Your task to perform on an android device: Open Chrome and go to the settings page Image 0: 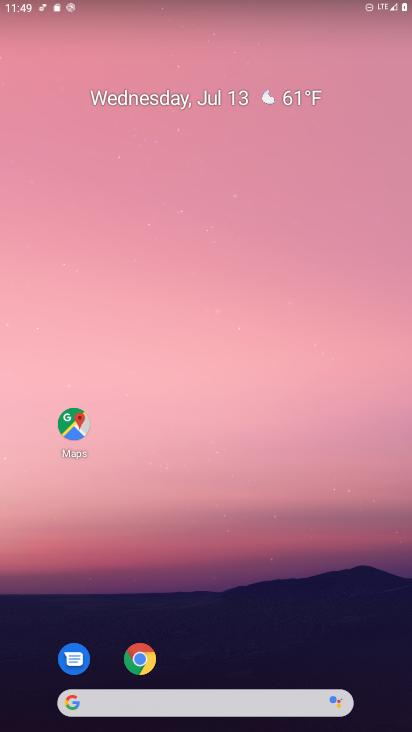
Step 0: click (141, 662)
Your task to perform on an android device: Open Chrome and go to the settings page Image 1: 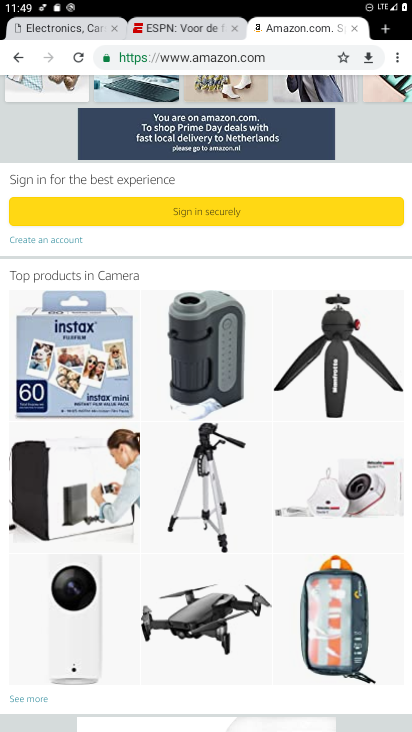
Step 1: click (394, 63)
Your task to perform on an android device: Open Chrome and go to the settings page Image 2: 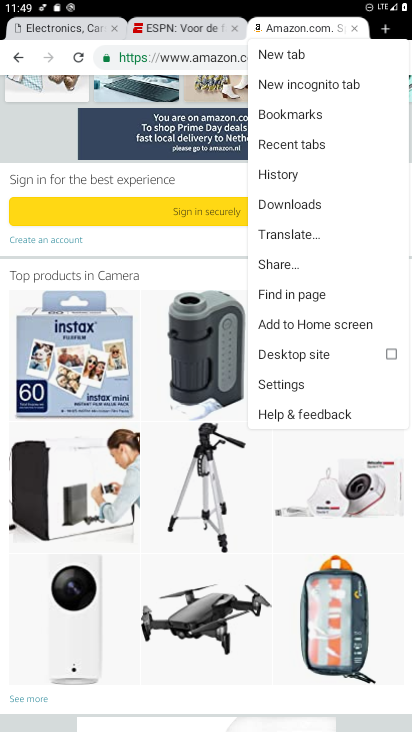
Step 2: click (281, 386)
Your task to perform on an android device: Open Chrome and go to the settings page Image 3: 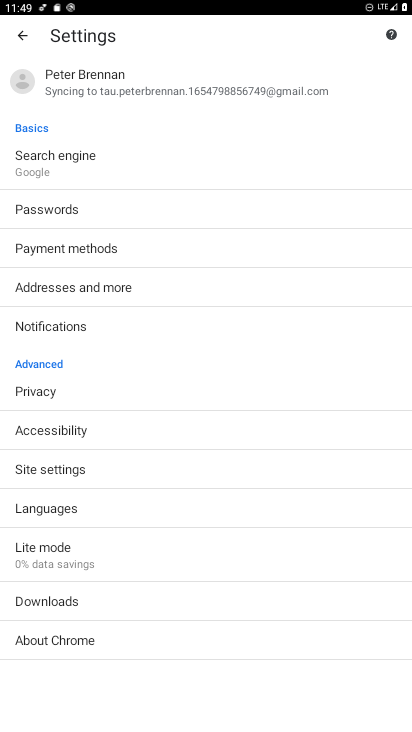
Step 3: task complete